Your task to perform on an android device: Open notification settings Image 0: 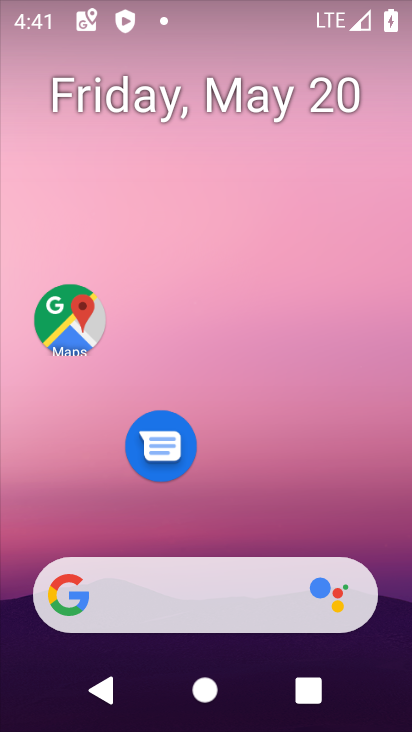
Step 0: drag from (216, 548) to (223, 18)
Your task to perform on an android device: Open notification settings Image 1: 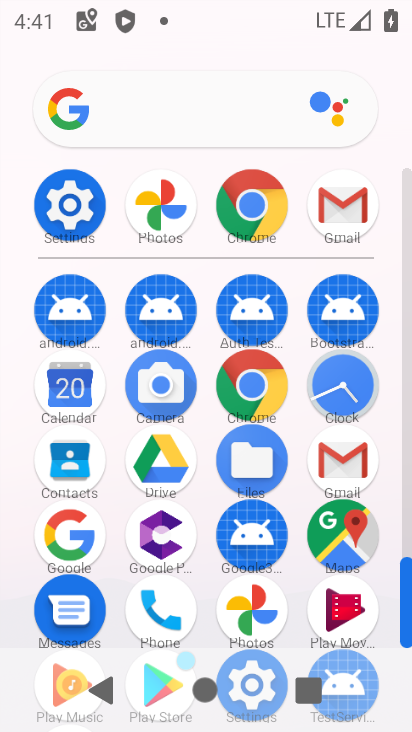
Step 1: click (91, 206)
Your task to perform on an android device: Open notification settings Image 2: 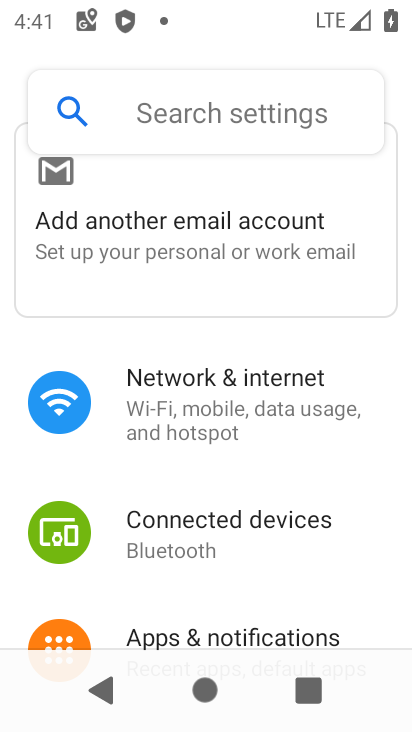
Step 2: drag from (223, 549) to (270, 192)
Your task to perform on an android device: Open notification settings Image 3: 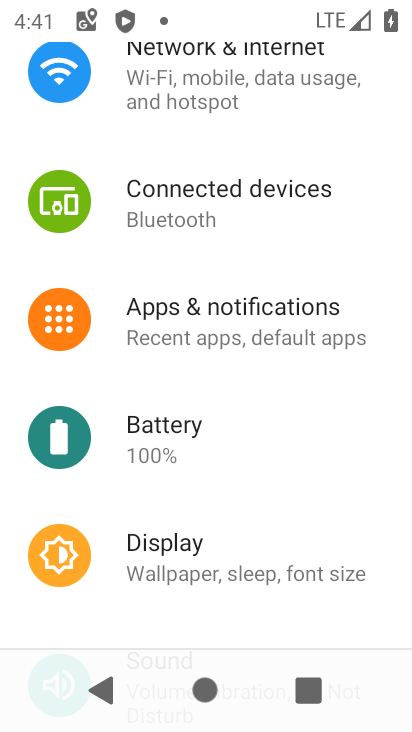
Step 3: drag from (207, 548) to (218, 485)
Your task to perform on an android device: Open notification settings Image 4: 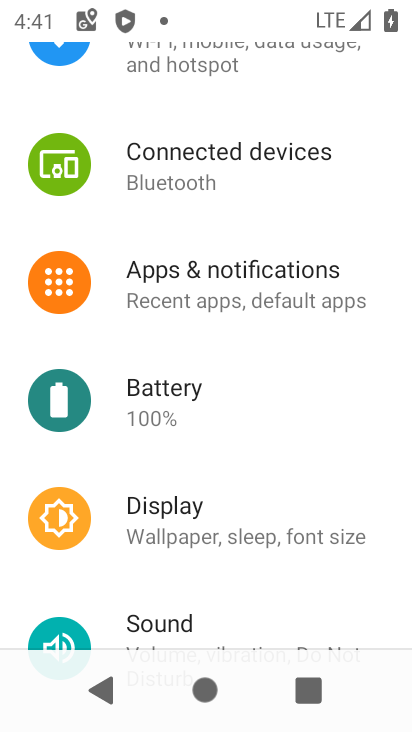
Step 4: click (215, 284)
Your task to perform on an android device: Open notification settings Image 5: 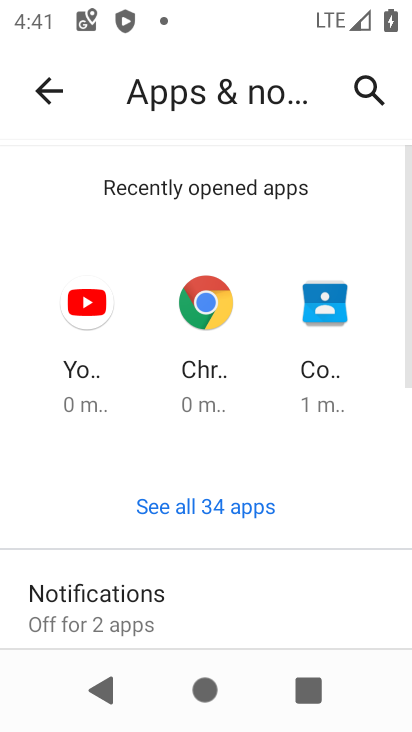
Step 5: drag from (128, 515) to (155, 341)
Your task to perform on an android device: Open notification settings Image 6: 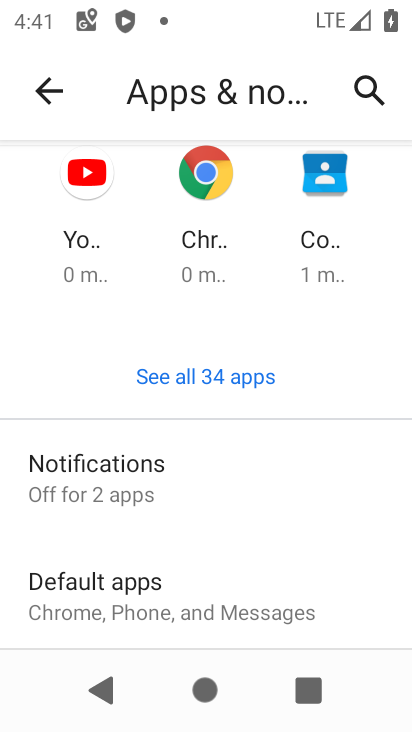
Step 6: click (83, 485)
Your task to perform on an android device: Open notification settings Image 7: 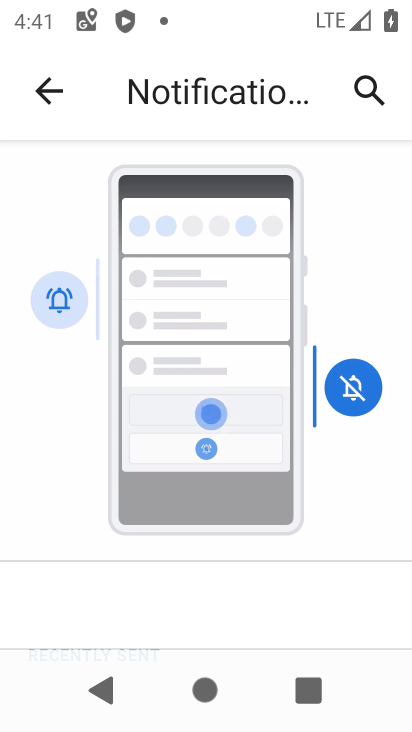
Step 7: task complete